Your task to perform on an android device: Go to Yahoo.com Image 0: 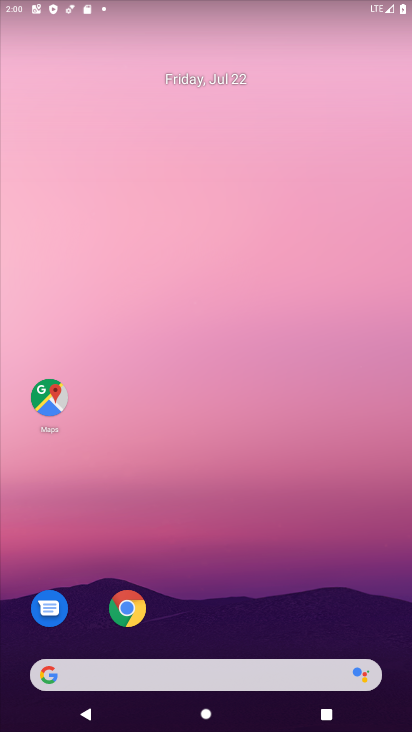
Step 0: click (116, 603)
Your task to perform on an android device: Go to Yahoo.com Image 1: 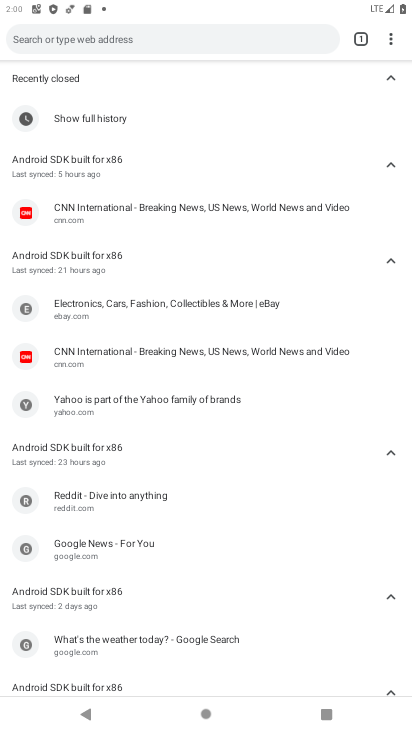
Step 1: click (176, 40)
Your task to perform on an android device: Go to Yahoo.com Image 2: 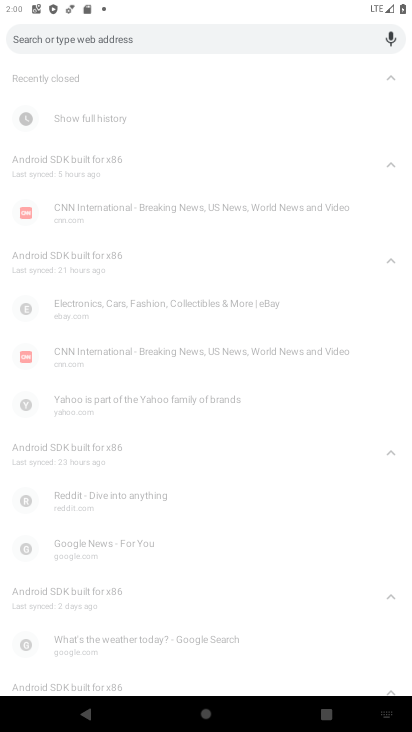
Step 2: type "Yahoo.com"
Your task to perform on an android device: Go to Yahoo.com Image 3: 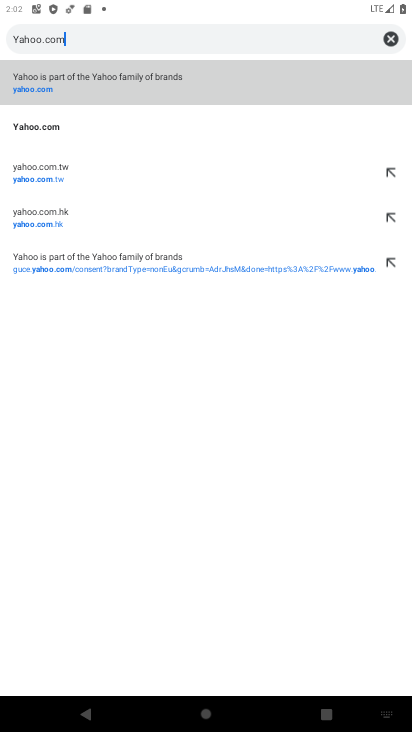
Step 3: click (30, 126)
Your task to perform on an android device: Go to Yahoo.com Image 4: 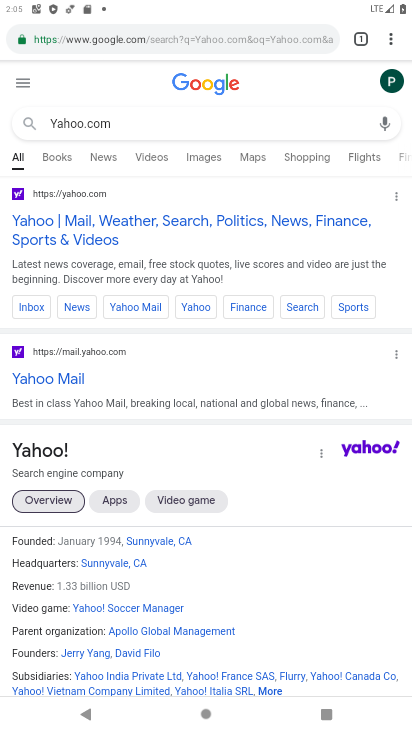
Step 4: task complete